Your task to perform on an android device: Go to ESPN.com Image 0: 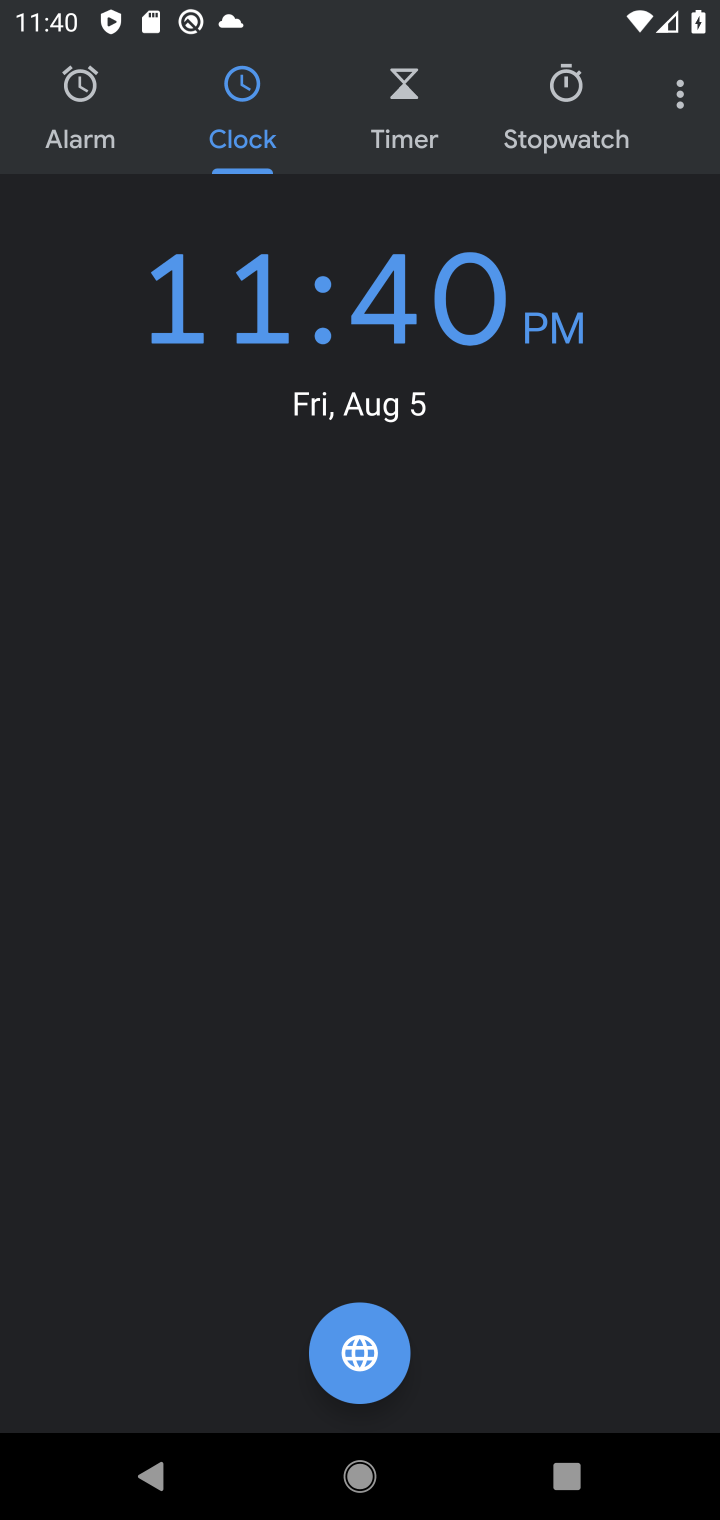
Step 0: press home button
Your task to perform on an android device: Go to ESPN.com Image 1: 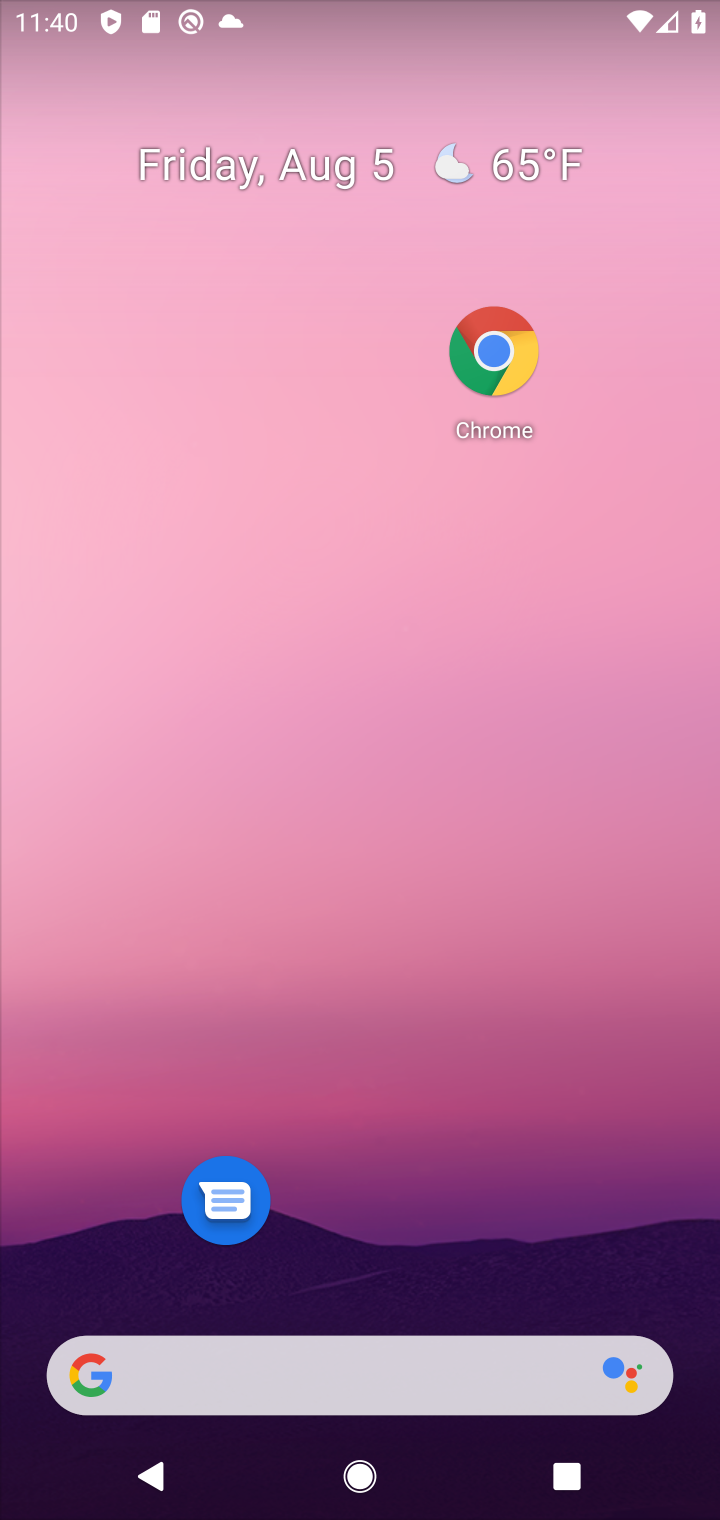
Step 1: click (518, 412)
Your task to perform on an android device: Go to ESPN.com Image 2: 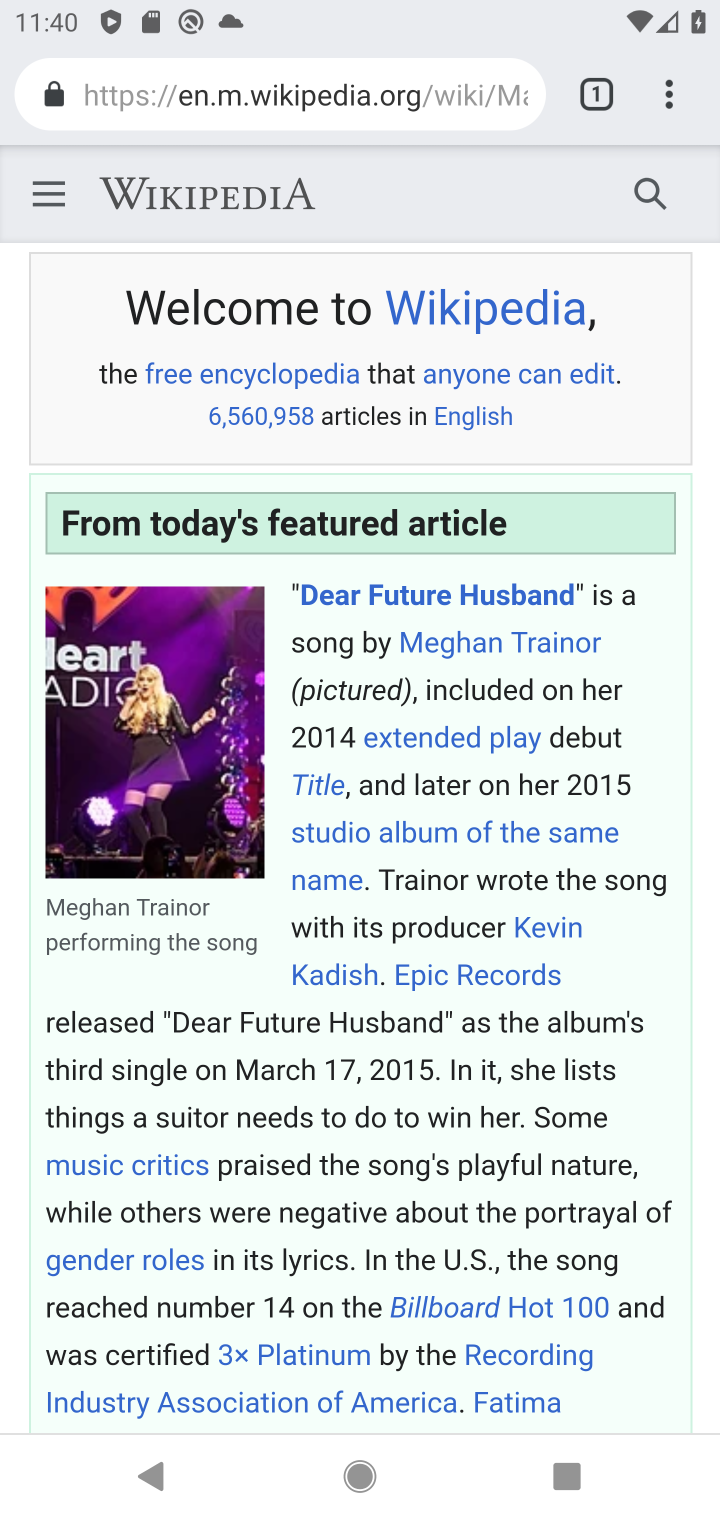
Step 2: click (404, 109)
Your task to perform on an android device: Go to ESPN.com Image 3: 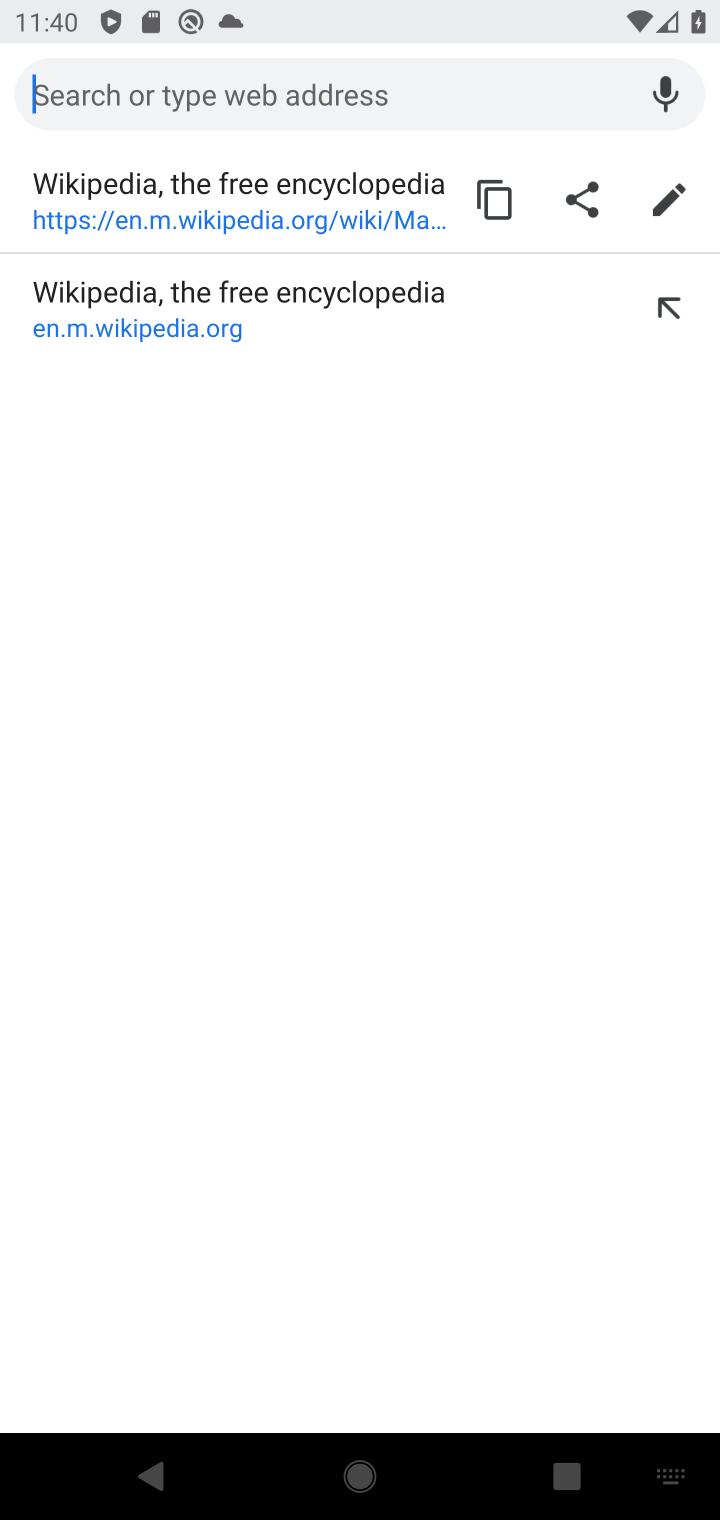
Step 3: type "espn"
Your task to perform on an android device: Go to ESPN.com Image 4: 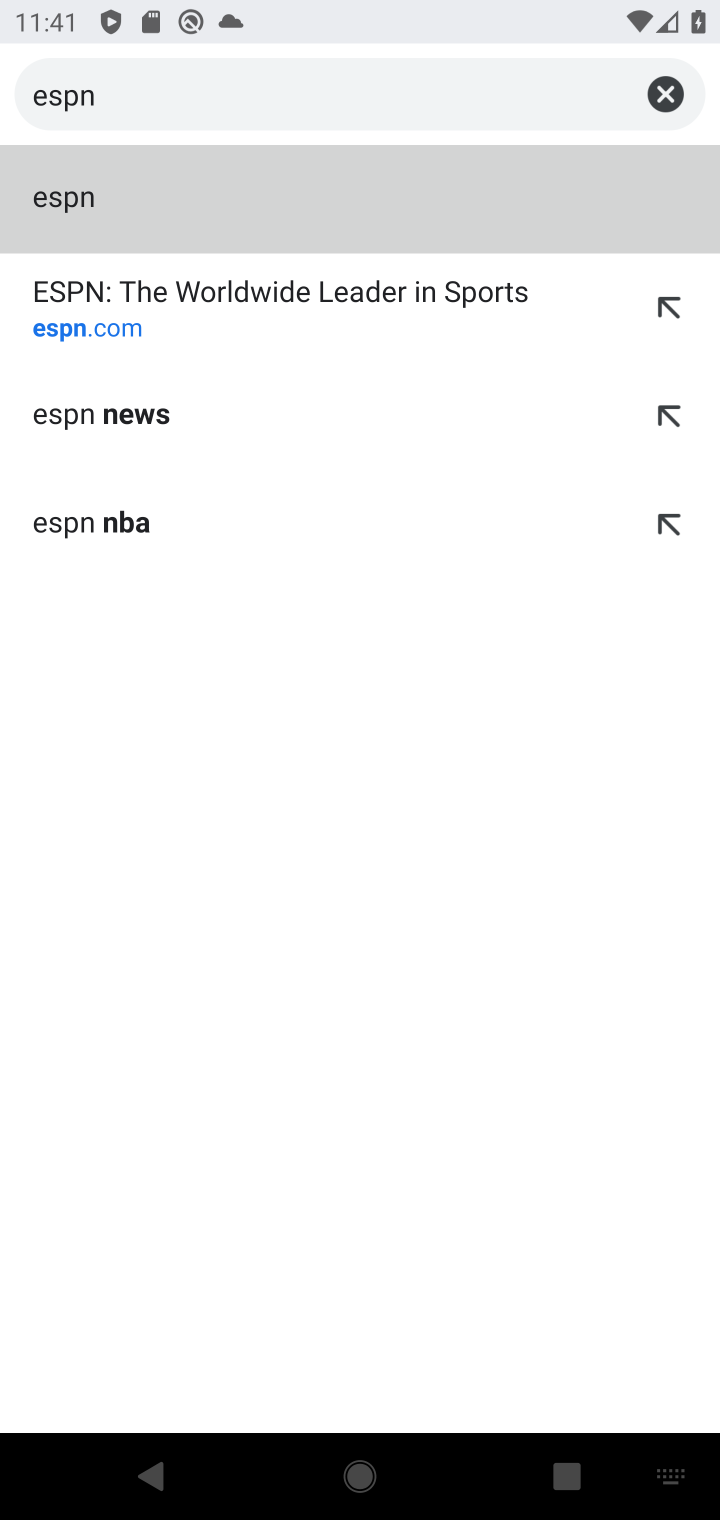
Step 4: click (255, 341)
Your task to perform on an android device: Go to ESPN.com Image 5: 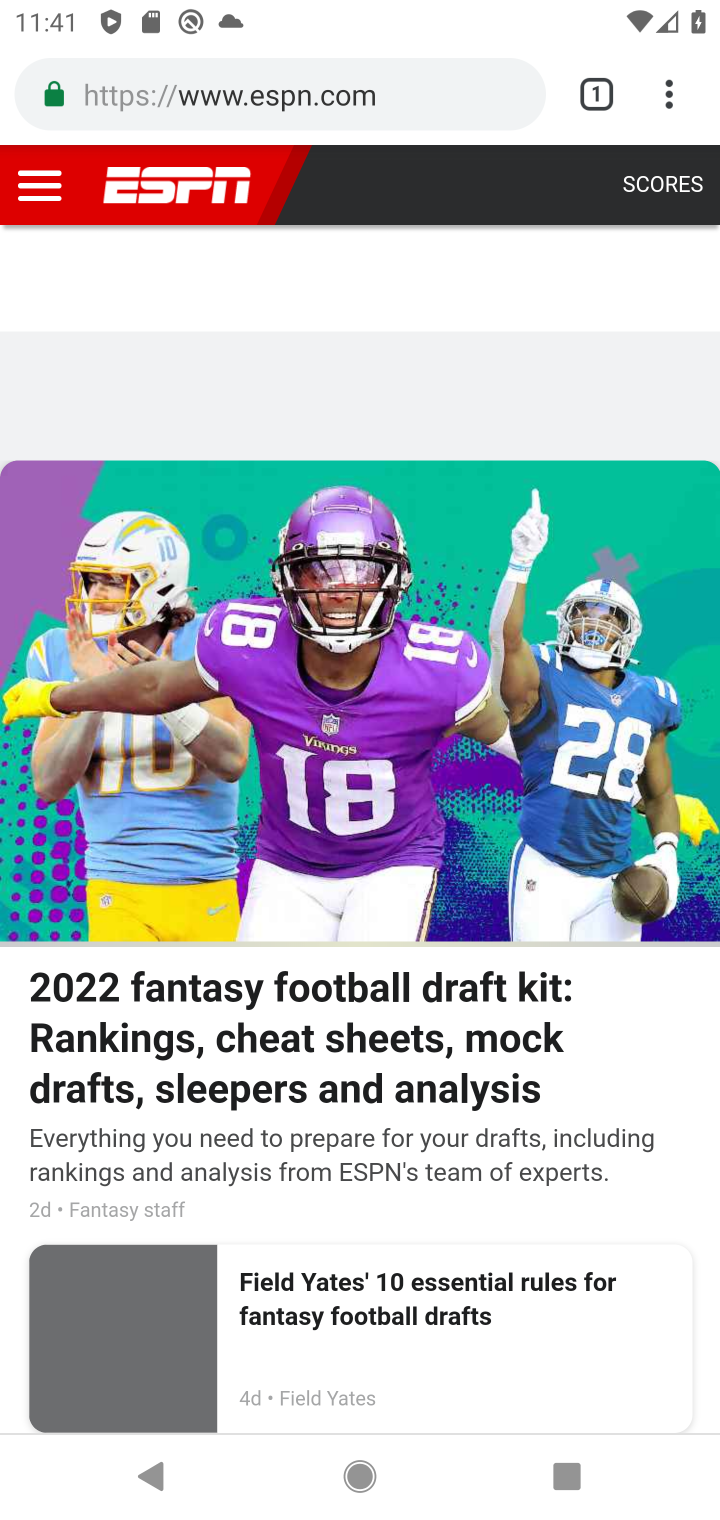
Step 5: task complete